Your task to perform on an android device: change notification settings in the gmail app Image 0: 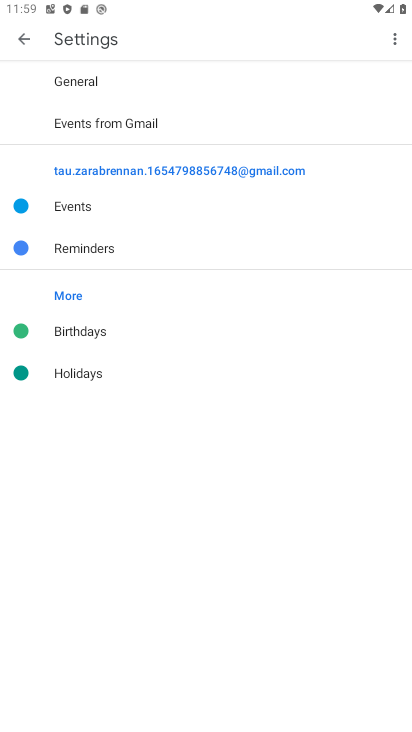
Step 0: press home button
Your task to perform on an android device: change notification settings in the gmail app Image 1: 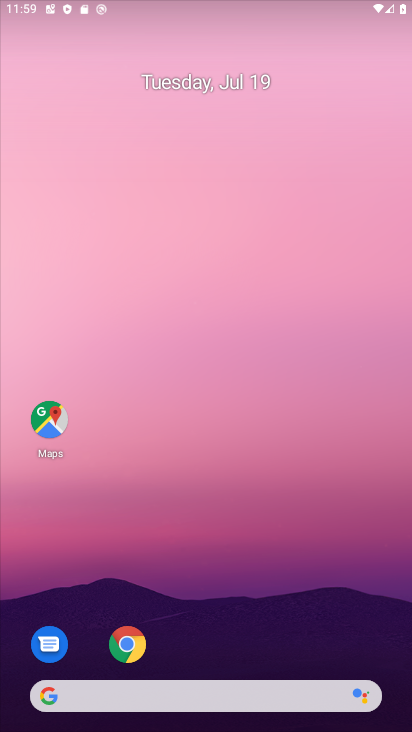
Step 1: drag from (388, 511) to (364, 115)
Your task to perform on an android device: change notification settings in the gmail app Image 2: 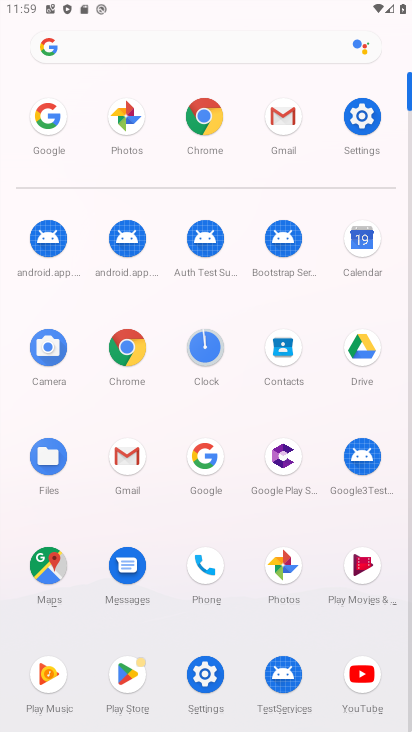
Step 2: click (148, 448)
Your task to perform on an android device: change notification settings in the gmail app Image 3: 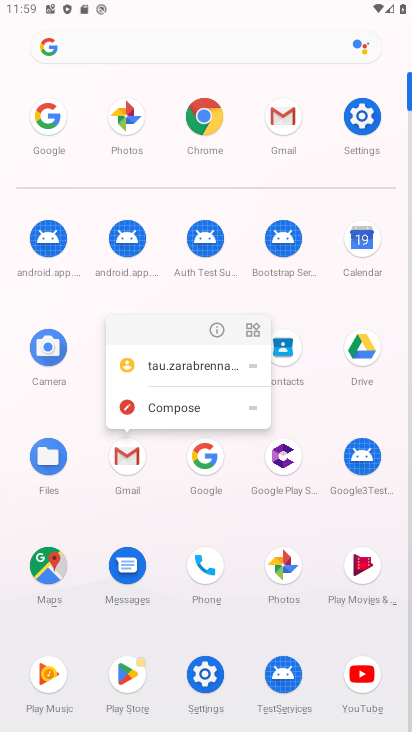
Step 3: click (218, 333)
Your task to perform on an android device: change notification settings in the gmail app Image 4: 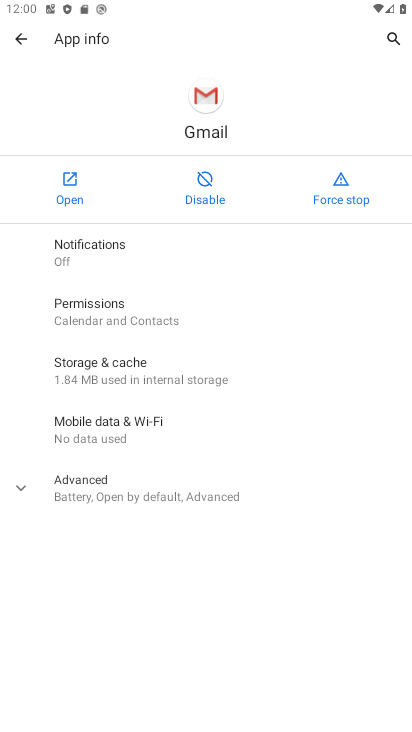
Step 4: click (211, 268)
Your task to perform on an android device: change notification settings in the gmail app Image 5: 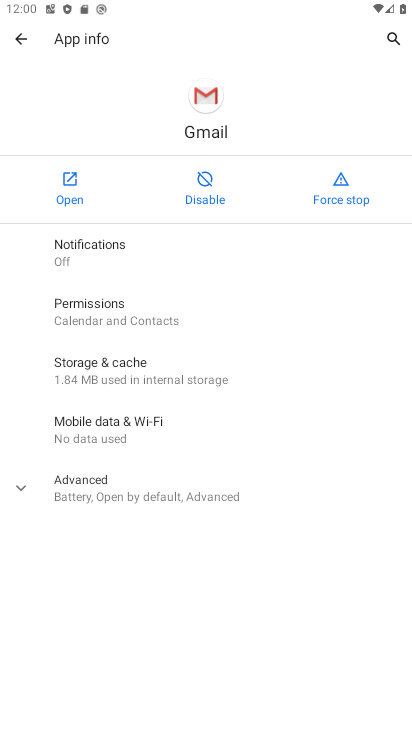
Step 5: click (246, 210)
Your task to perform on an android device: change notification settings in the gmail app Image 6: 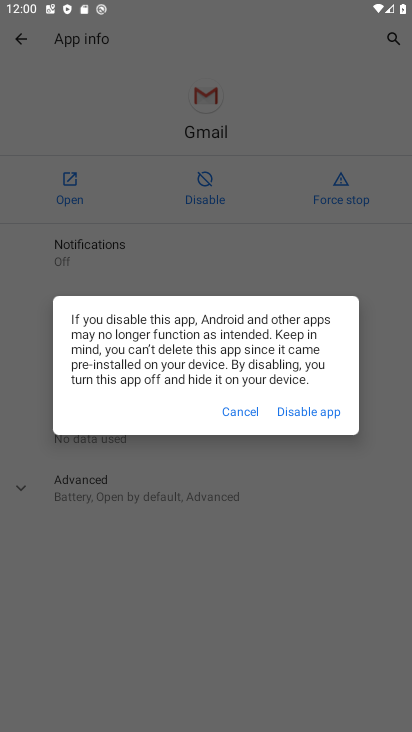
Step 6: click (248, 411)
Your task to perform on an android device: change notification settings in the gmail app Image 7: 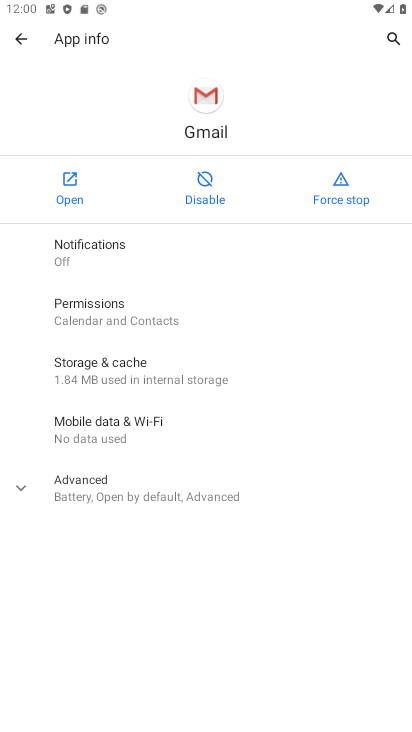
Step 7: click (50, 234)
Your task to perform on an android device: change notification settings in the gmail app Image 8: 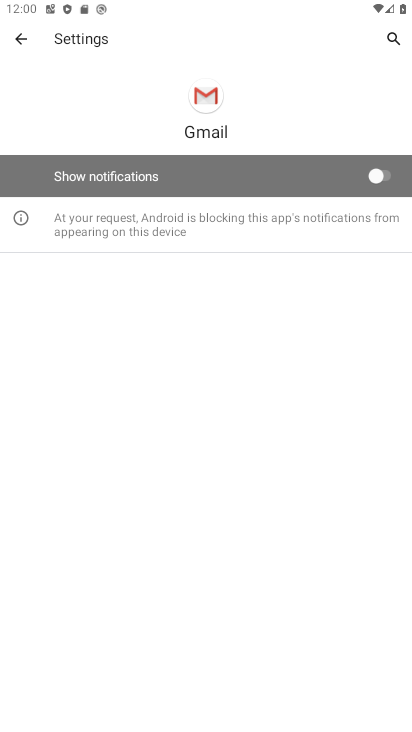
Step 8: click (230, 171)
Your task to perform on an android device: change notification settings in the gmail app Image 9: 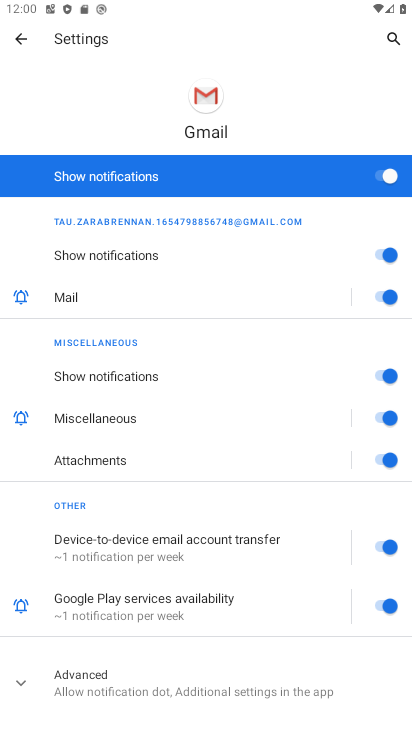
Step 9: task complete